Your task to perform on an android device: What is the recent news? Image 0: 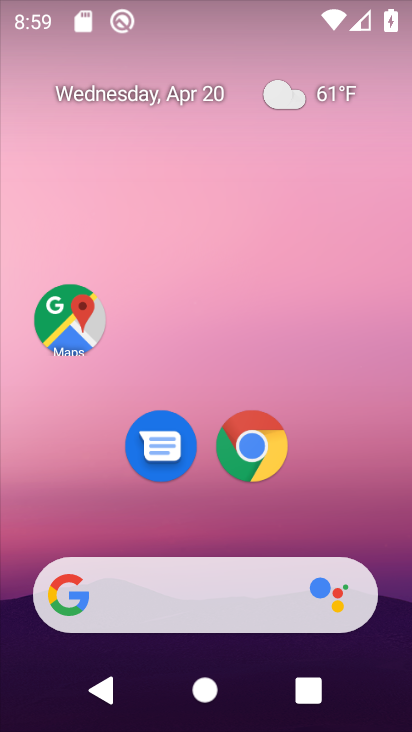
Step 0: drag from (302, 471) to (334, 145)
Your task to perform on an android device: What is the recent news? Image 1: 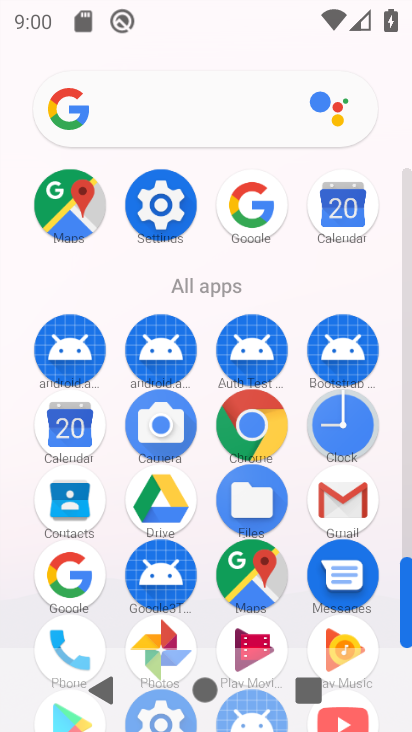
Step 1: click (249, 433)
Your task to perform on an android device: What is the recent news? Image 2: 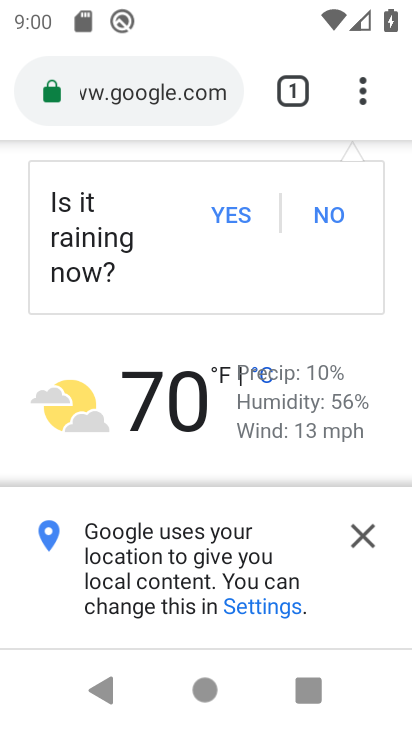
Step 2: click (205, 100)
Your task to perform on an android device: What is the recent news? Image 3: 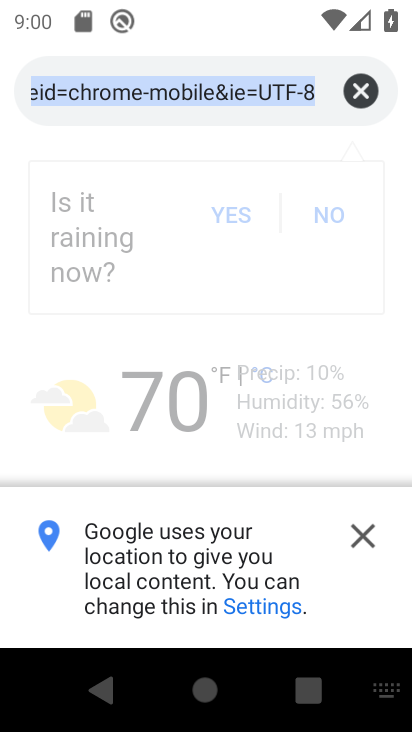
Step 3: click (365, 95)
Your task to perform on an android device: What is the recent news? Image 4: 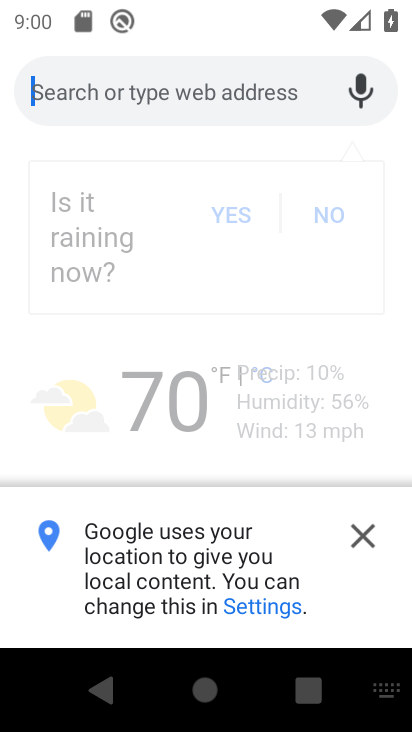
Step 4: click (231, 95)
Your task to perform on an android device: What is the recent news? Image 5: 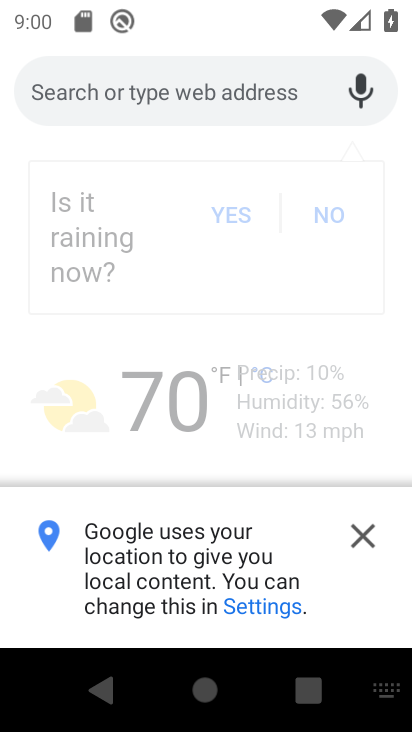
Step 5: type "recent news"
Your task to perform on an android device: What is the recent news? Image 6: 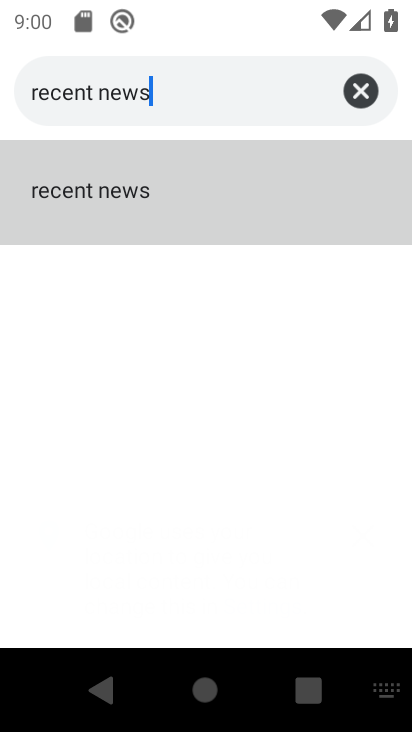
Step 6: click (135, 188)
Your task to perform on an android device: What is the recent news? Image 7: 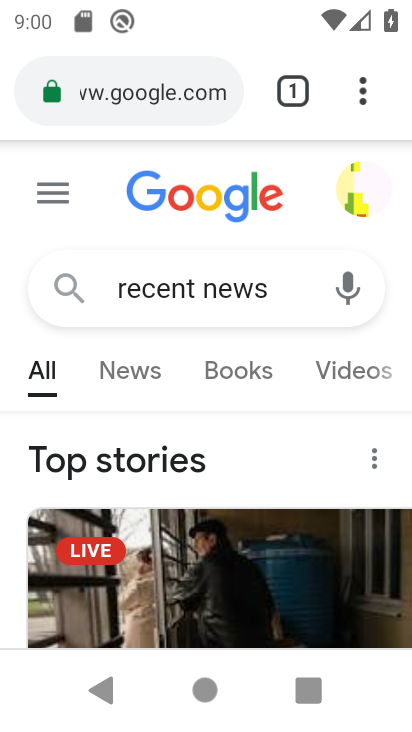
Step 7: task complete